Your task to perform on an android device: visit the assistant section in the google photos Image 0: 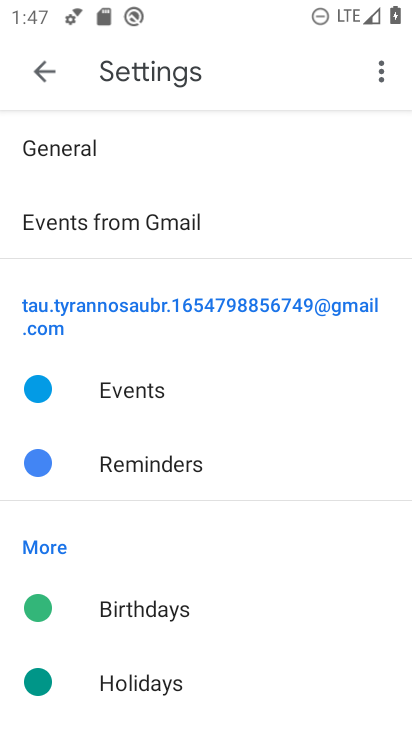
Step 0: press home button
Your task to perform on an android device: visit the assistant section in the google photos Image 1: 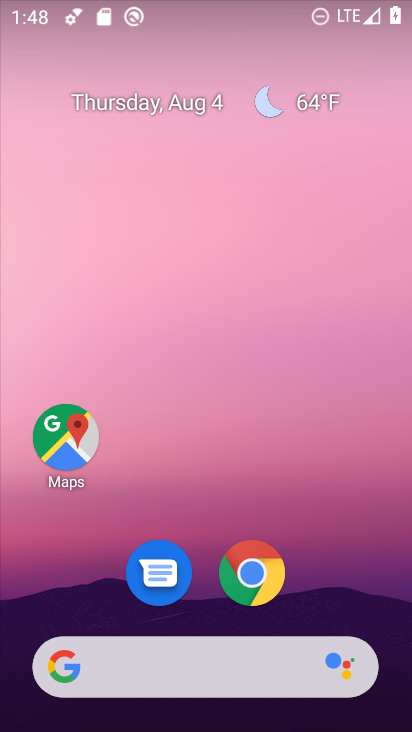
Step 1: drag from (338, 517) to (324, 86)
Your task to perform on an android device: visit the assistant section in the google photos Image 2: 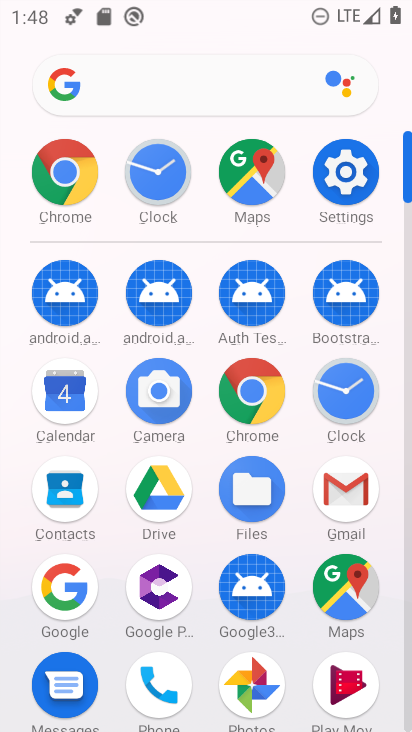
Step 2: click (246, 681)
Your task to perform on an android device: visit the assistant section in the google photos Image 3: 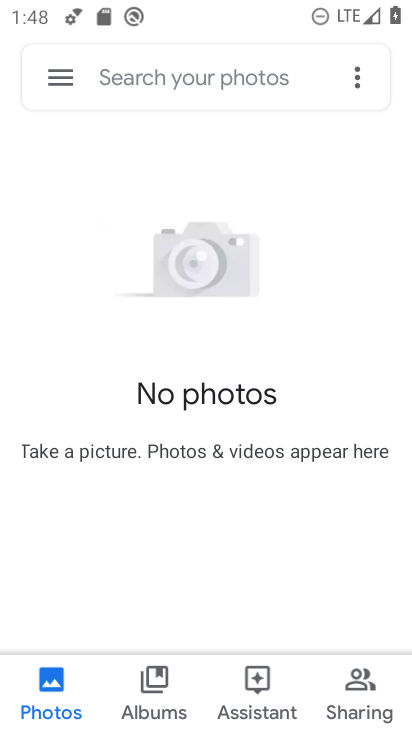
Step 3: click (246, 681)
Your task to perform on an android device: visit the assistant section in the google photos Image 4: 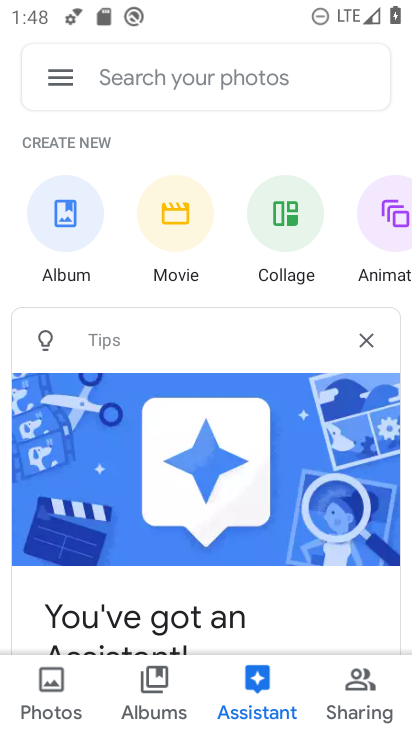
Step 4: task complete